Your task to perform on an android device: add a label to a message in the gmail app Image 0: 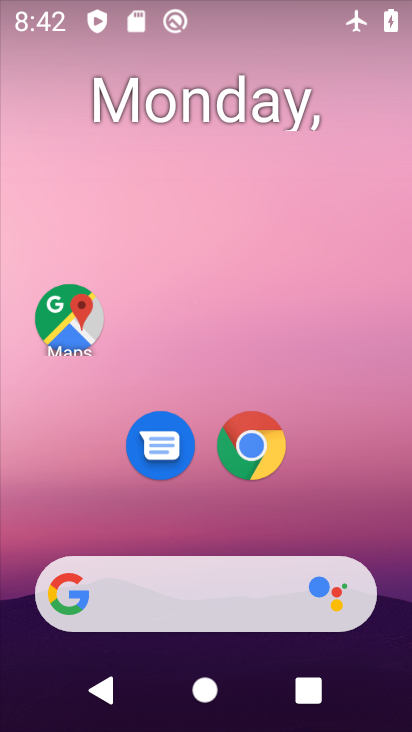
Step 0: drag from (320, 580) to (359, 55)
Your task to perform on an android device: add a label to a message in the gmail app Image 1: 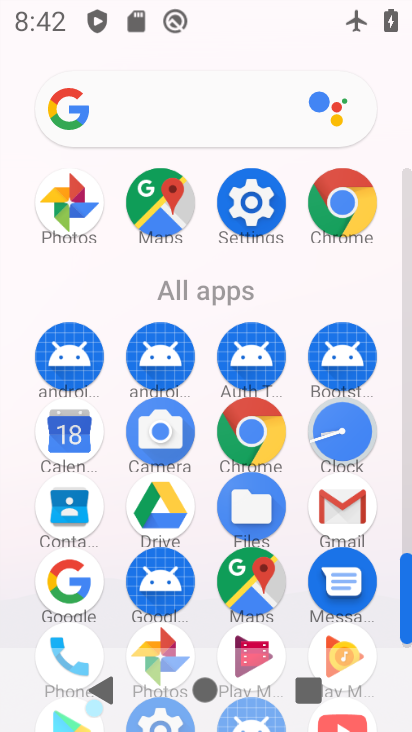
Step 1: drag from (271, 603) to (284, 225)
Your task to perform on an android device: add a label to a message in the gmail app Image 2: 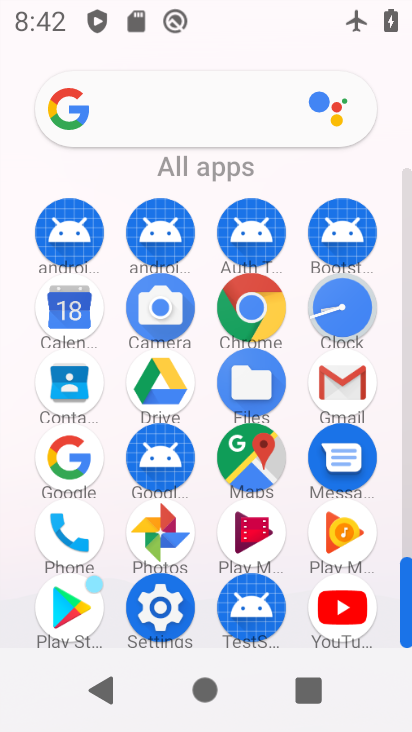
Step 2: click (356, 379)
Your task to perform on an android device: add a label to a message in the gmail app Image 3: 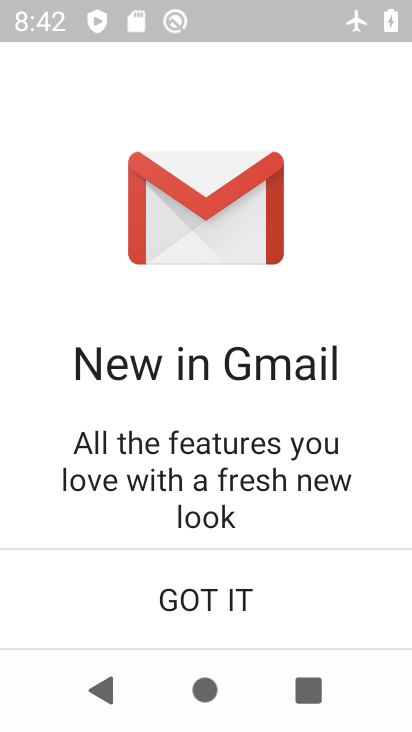
Step 3: click (225, 571)
Your task to perform on an android device: add a label to a message in the gmail app Image 4: 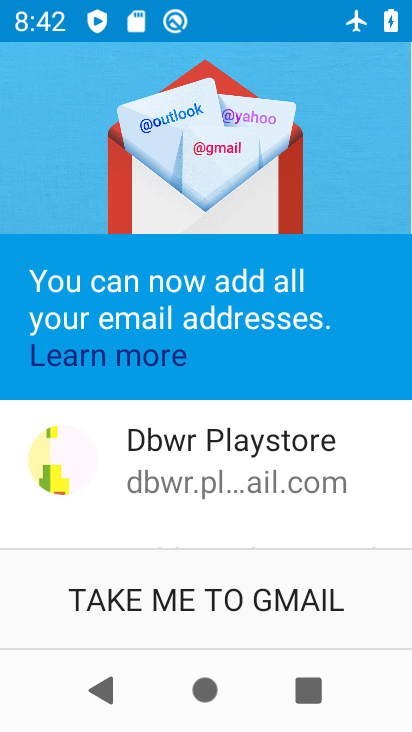
Step 4: click (306, 581)
Your task to perform on an android device: add a label to a message in the gmail app Image 5: 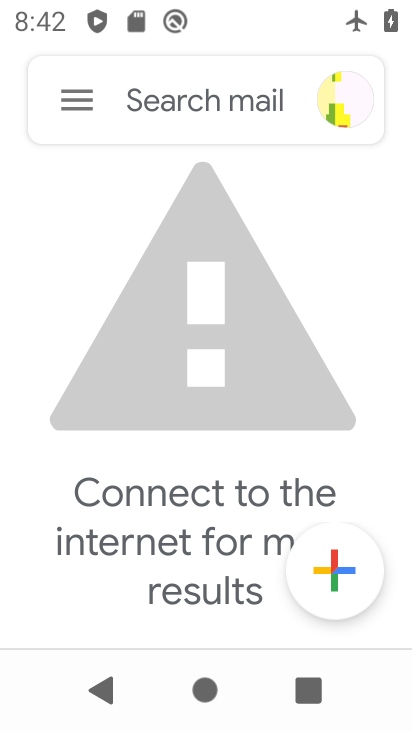
Step 5: task complete